Your task to perform on an android device: Turn on the flashlight Image 0: 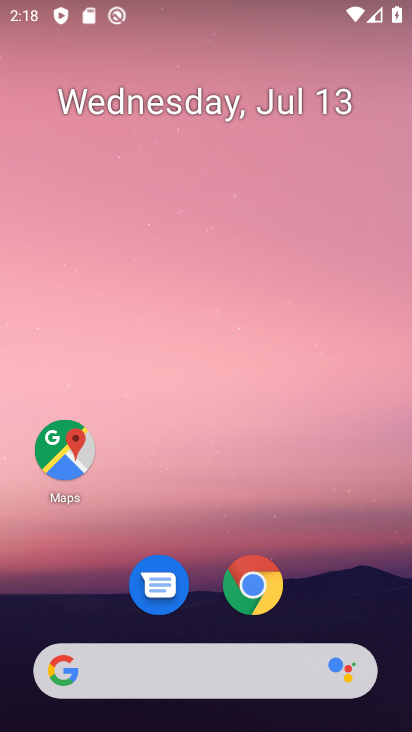
Step 0: press home button
Your task to perform on an android device: Turn on the flashlight Image 1: 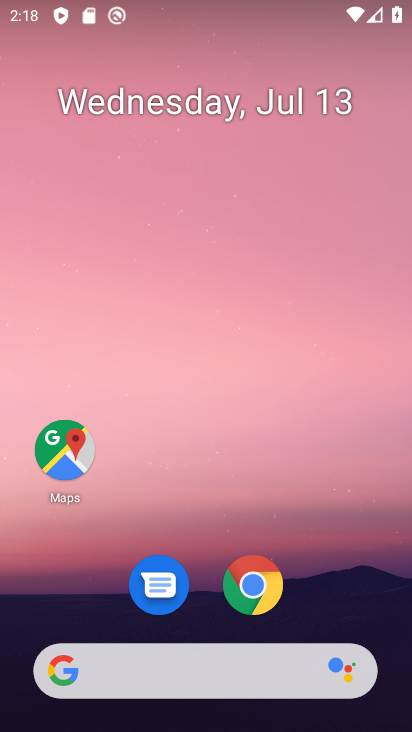
Step 1: task complete